Your task to perform on an android device: Open my contact list Image 0: 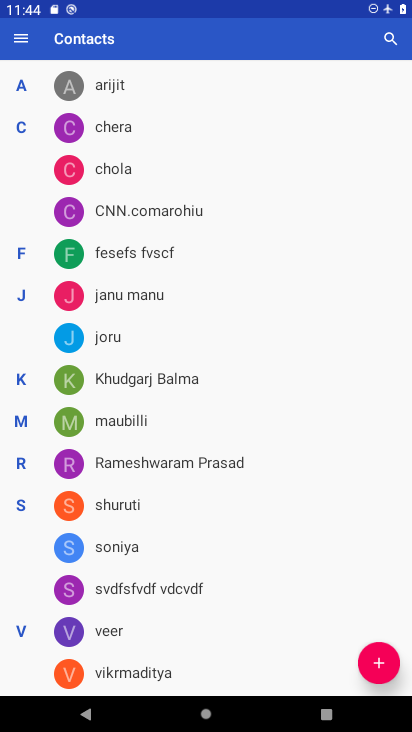
Step 0: task complete